Your task to perform on an android device: Add energizer triple a to the cart on newegg, then select checkout. Image 0: 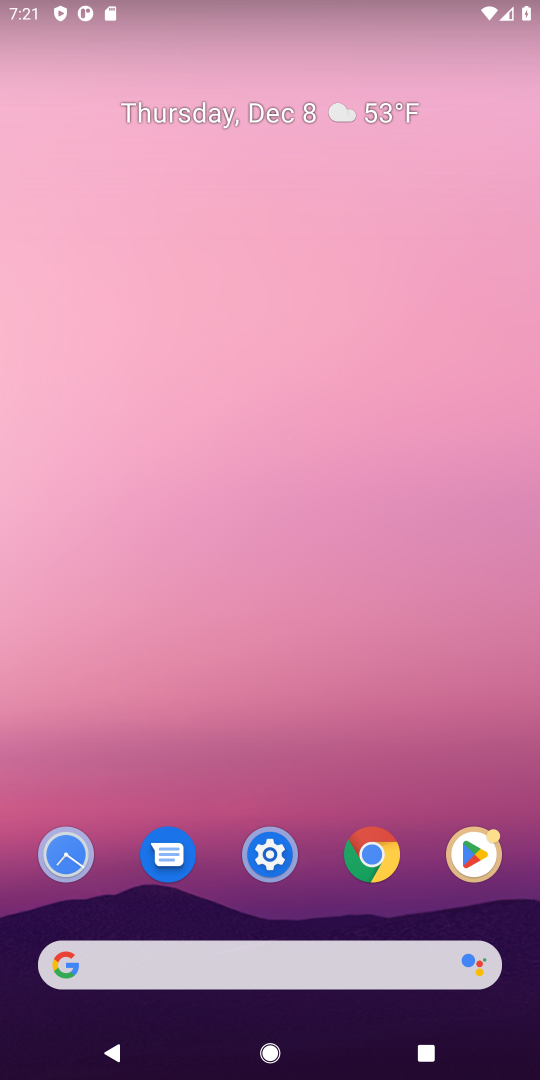
Step 0: press home button
Your task to perform on an android device: Add energizer triple a to the cart on newegg, then select checkout. Image 1: 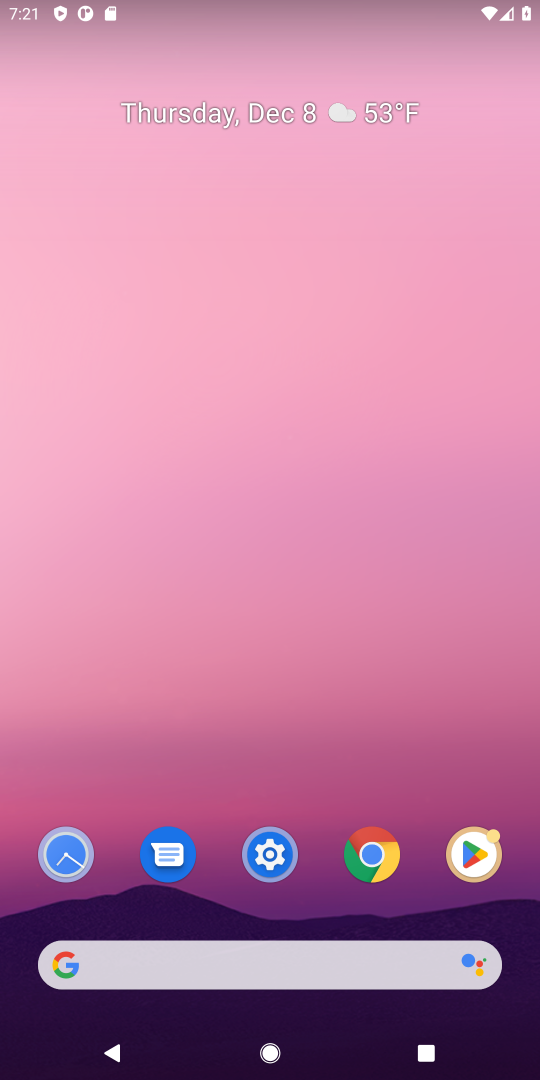
Step 1: click (81, 960)
Your task to perform on an android device: Add energizer triple a to the cart on newegg, then select checkout. Image 2: 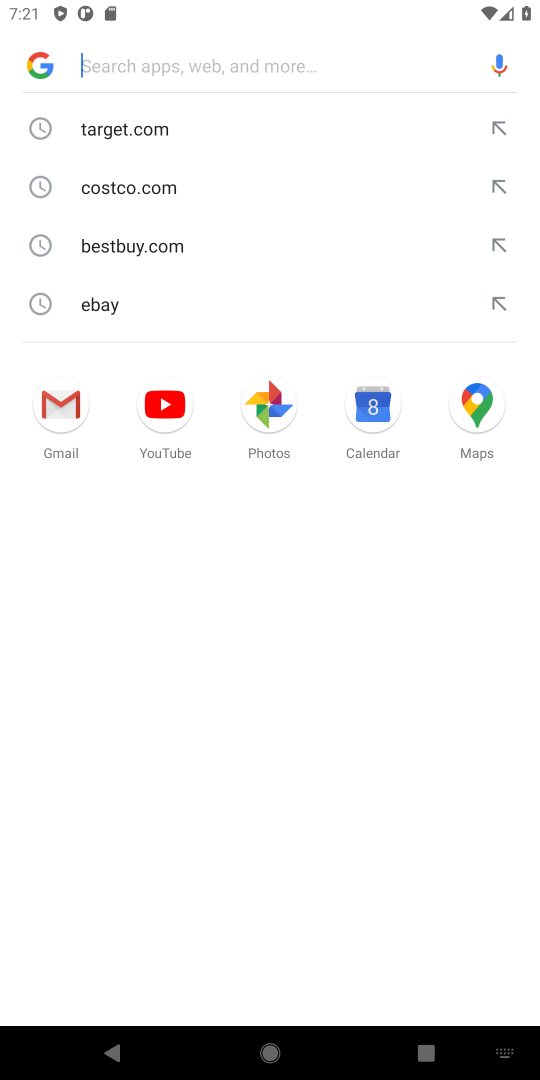
Step 2: type "newegg"
Your task to perform on an android device: Add energizer triple a to the cart on newegg, then select checkout. Image 3: 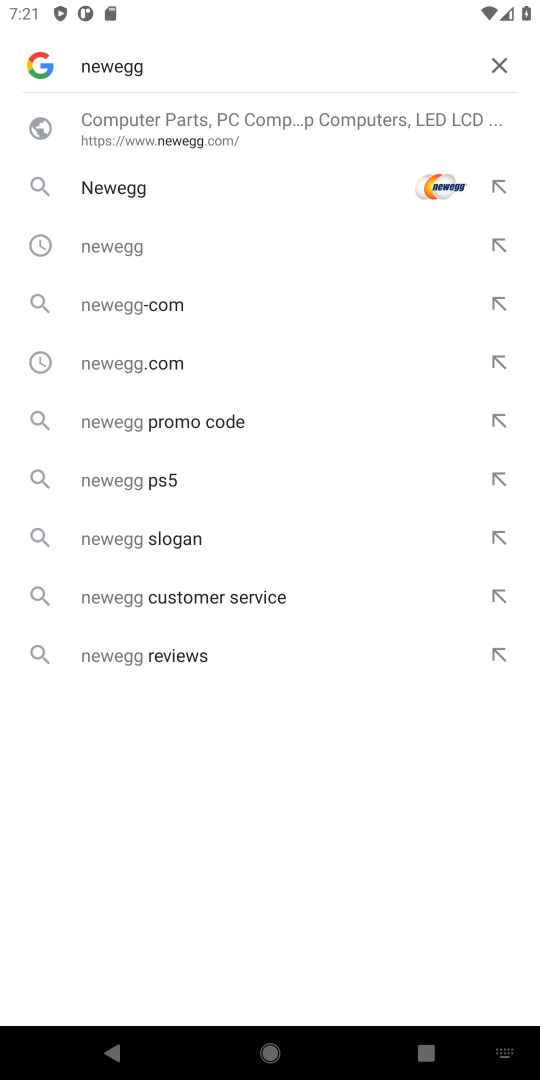
Step 3: press enter
Your task to perform on an android device: Add energizer triple a to the cart on newegg, then select checkout. Image 4: 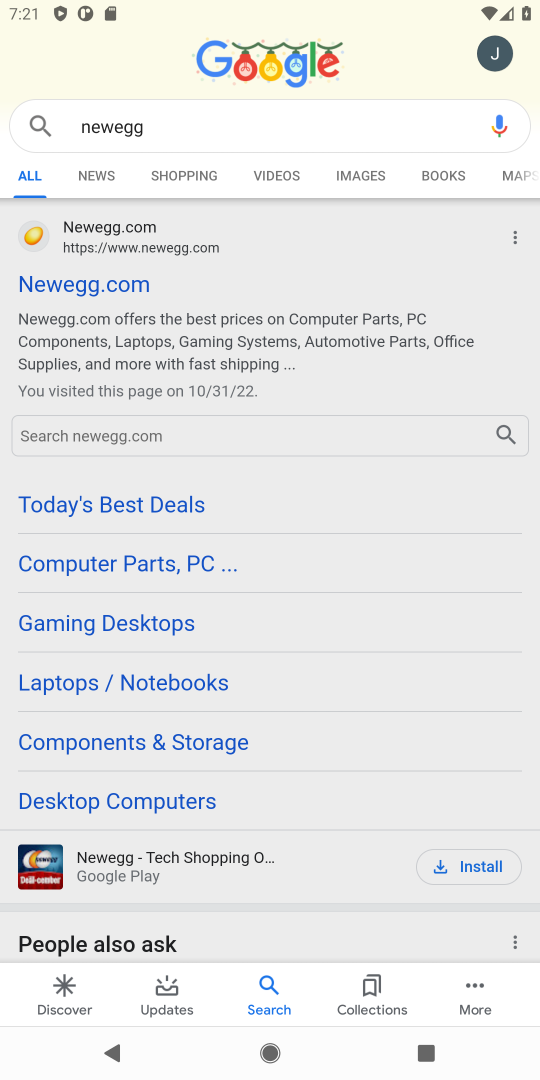
Step 4: click (87, 281)
Your task to perform on an android device: Add energizer triple a to the cart on newegg, then select checkout. Image 5: 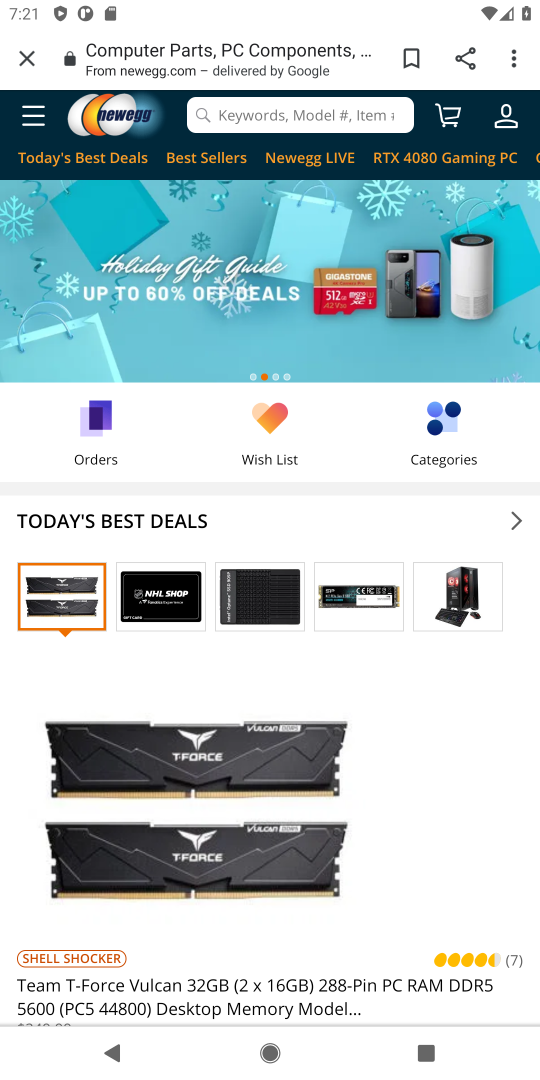
Step 5: click (225, 108)
Your task to perform on an android device: Add energizer triple a to the cart on newegg, then select checkout. Image 6: 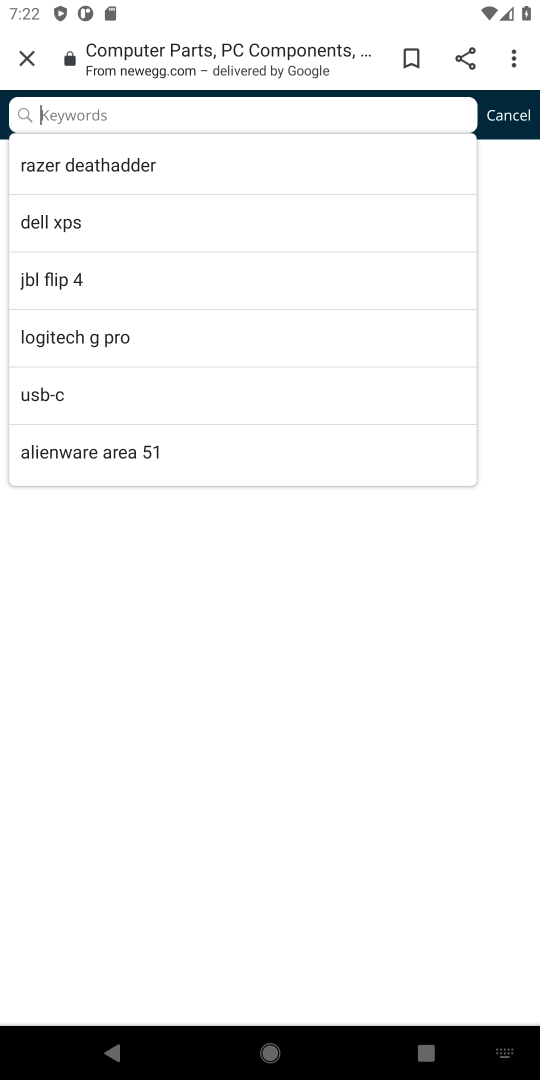
Step 6: type "energizer triple a"
Your task to perform on an android device: Add energizer triple a to the cart on newegg, then select checkout. Image 7: 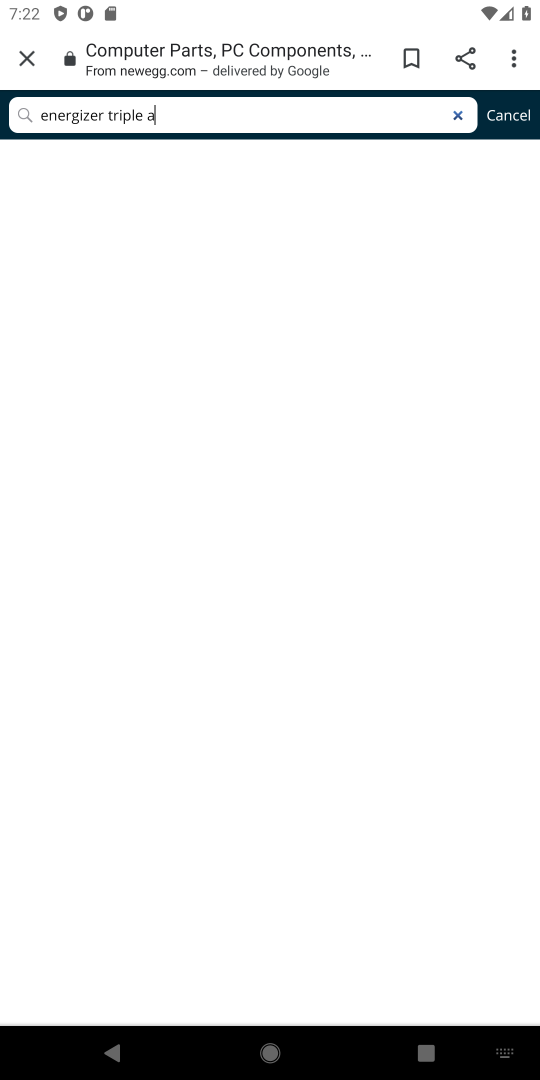
Step 7: press enter
Your task to perform on an android device: Add energizer triple a to the cart on newegg, then select checkout. Image 8: 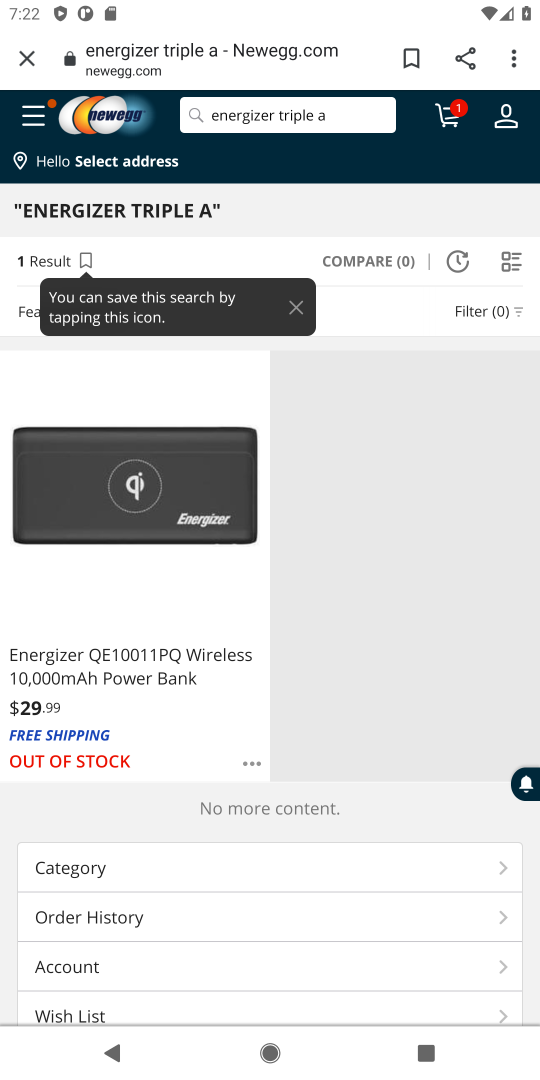
Step 8: task complete